Your task to perform on an android device: install app "Adobe Acrobat Reader" Image 0: 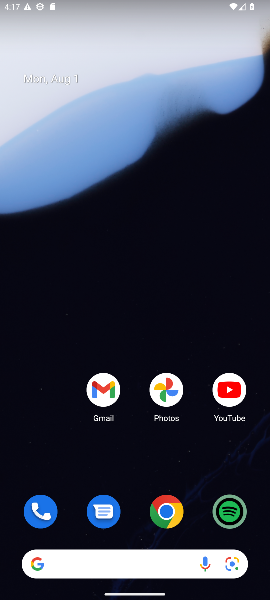
Step 0: drag from (129, 492) to (145, 12)
Your task to perform on an android device: install app "Adobe Acrobat Reader" Image 1: 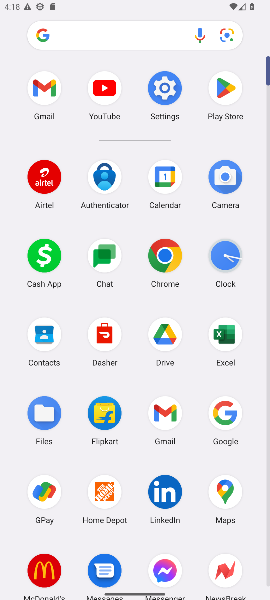
Step 1: click (218, 104)
Your task to perform on an android device: install app "Adobe Acrobat Reader" Image 2: 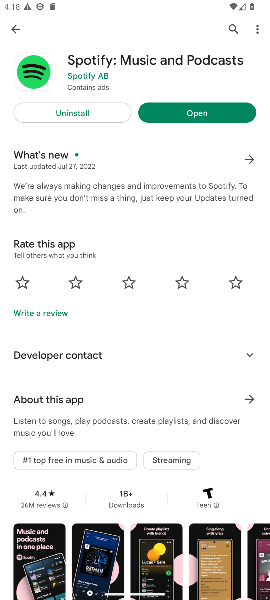
Step 2: click (15, 25)
Your task to perform on an android device: install app "Adobe Acrobat Reader" Image 3: 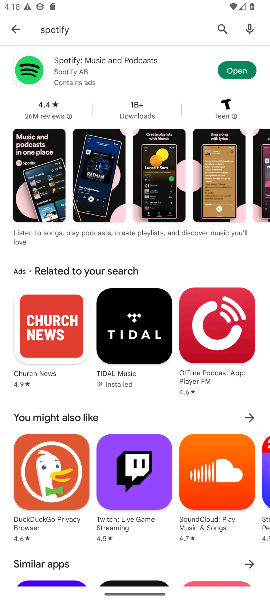
Step 3: click (11, 28)
Your task to perform on an android device: install app "Adobe Acrobat Reader" Image 4: 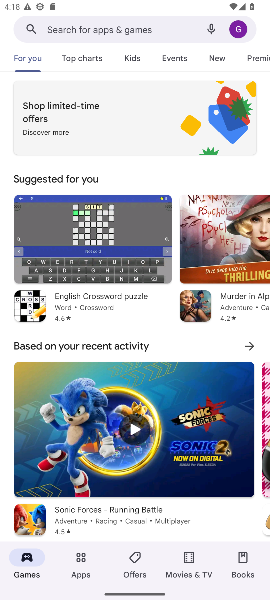
Step 4: click (124, 28)
Your task to perform on an android device: install app "Adobe Acrobat Reader" Image 5: 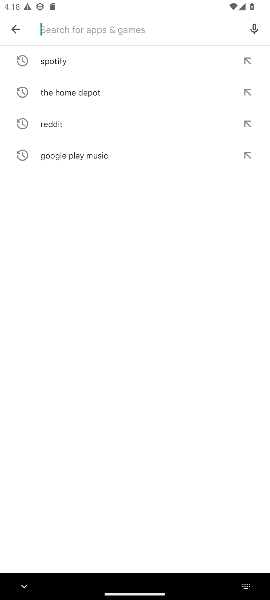
Step 5: type "Adobe Acrobat Reader"
Your task to perform on an android device: install app "Adobe Acrobat Reader" Image 6: 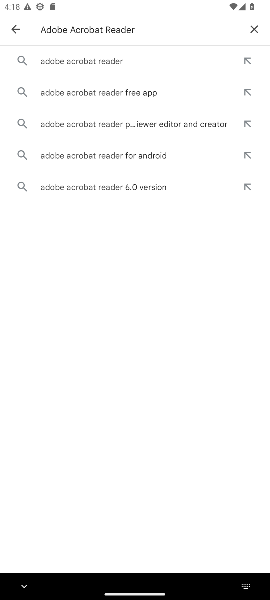
Step 6: click (83, 62)
Your task to perform on an android device: install app "Adobe Acrobat Reader" Image 7: 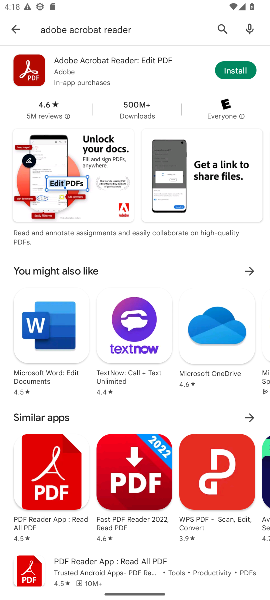
Step 7: click (235, 65)
Your task to perform on an android device: install app "Adobe Acrobat Reader" Image 8: 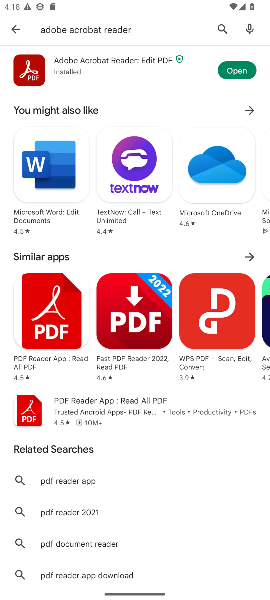
Step 8: task complete